Your task to perform on an android device: Go to Amazon Image 0: 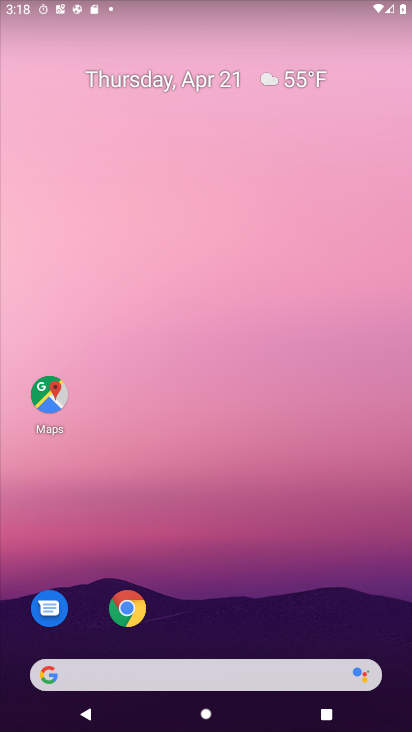
Step 0: drag from (399, 643) to (198, 55)
Your task to perform on an android device: Go to Amazon Image 1: 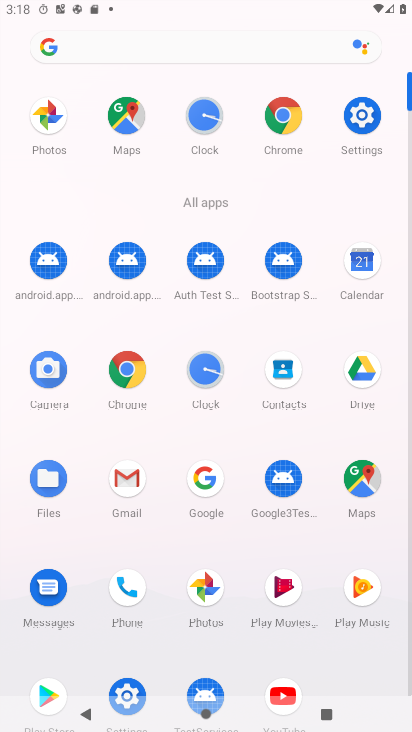
Step 1: click (294, 134)
Your task to perform on an android device: Go to Amazon Image 2: 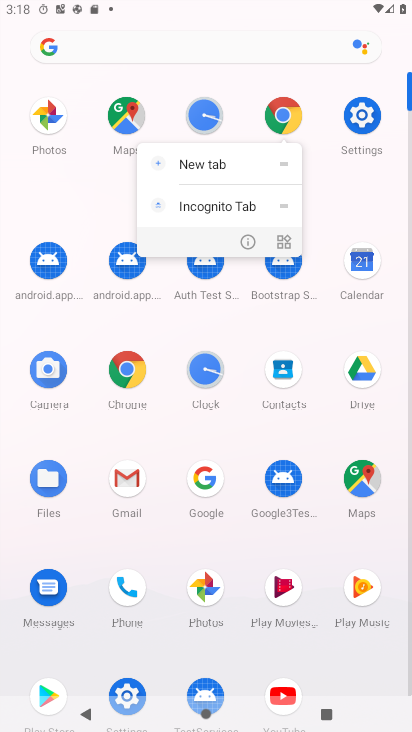
Step 2: click (294, 134)
Your task to perform on an android device: Go to Amazon Image 3: 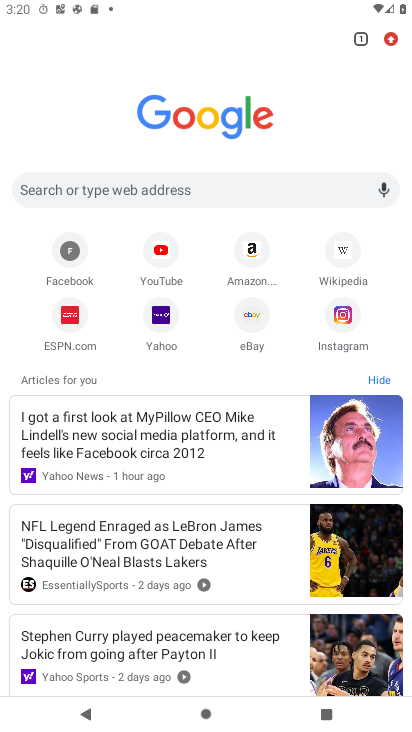
Step 3: click (253, 259)
Your task to perform on an android device: Go to Amazon Image 4: 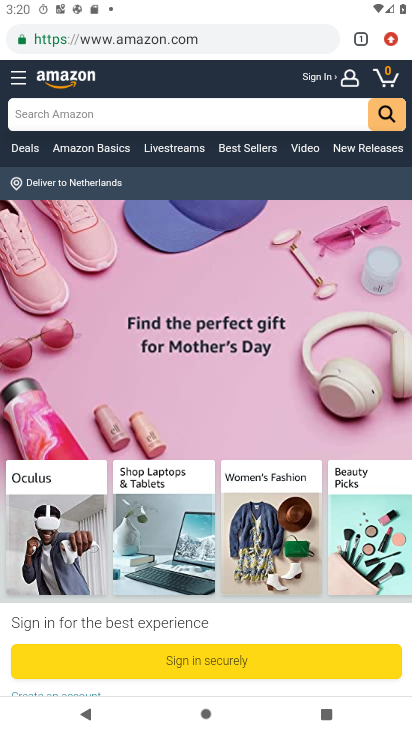
Step 4: task complete